Your task to perform on an android device: change the upload size in google photos Image 0: 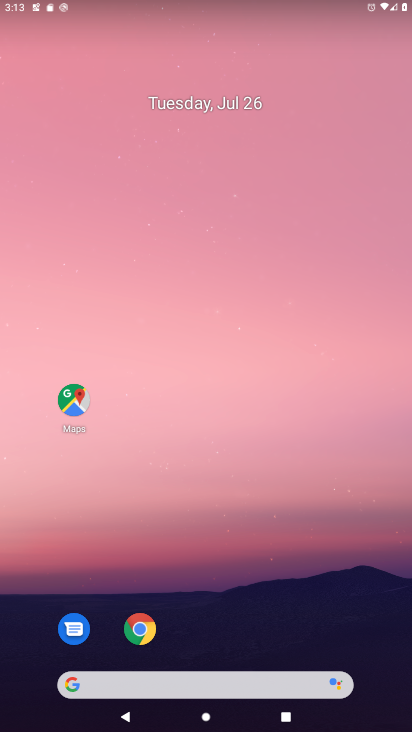
Step 0: drag from (208, 568) to (211, 167)
Your task to perform on an android device: change the upload size in google photos Image 1: 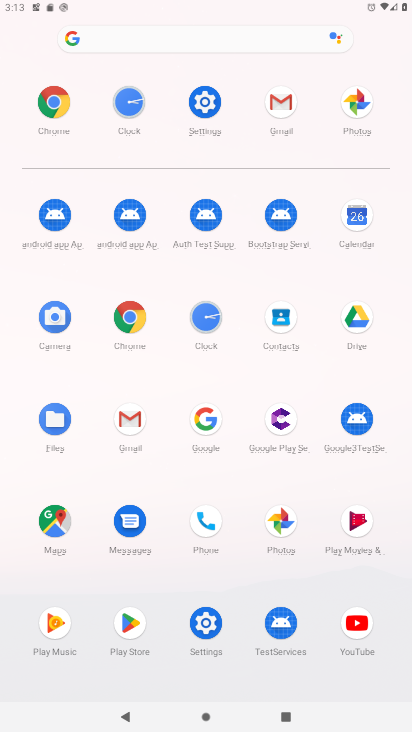
Step 1: click (273, 519)
Your task to perform on an android device: change the upload size in google photos Image 2: 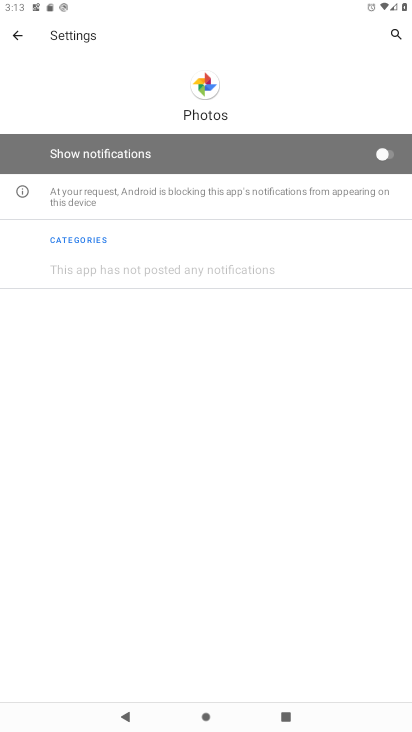
Step 2: click (16, 29)
Your task to perform on an android device: change the upload size in google photos Image 3: 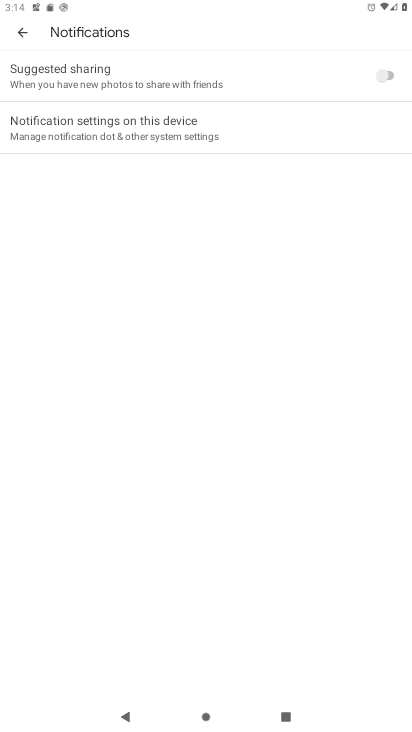
Step 3: click (23, 24)
Your task to perform on an android device: change the upload size in google photos Image 4: 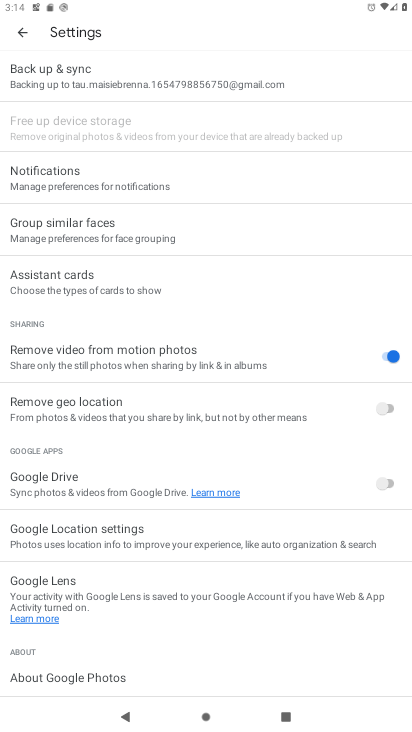
Step 4: click (103, 82)
Your task to perform on an android device: change the upload size in google photos Image 5: 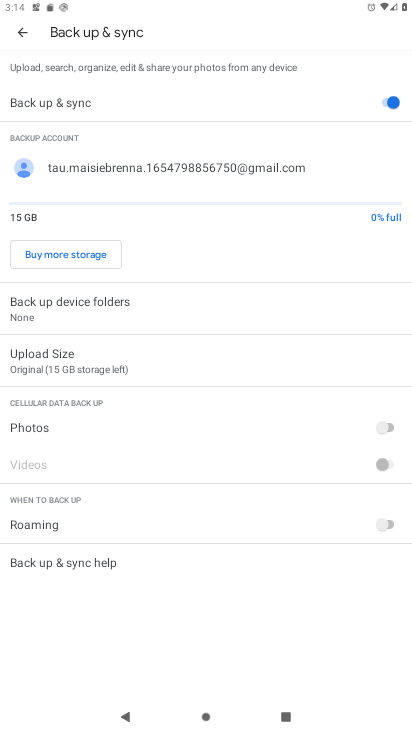
Step 5: click (83, 364)
Your task to perform on an android device: change the upload size in google photos Image 6: 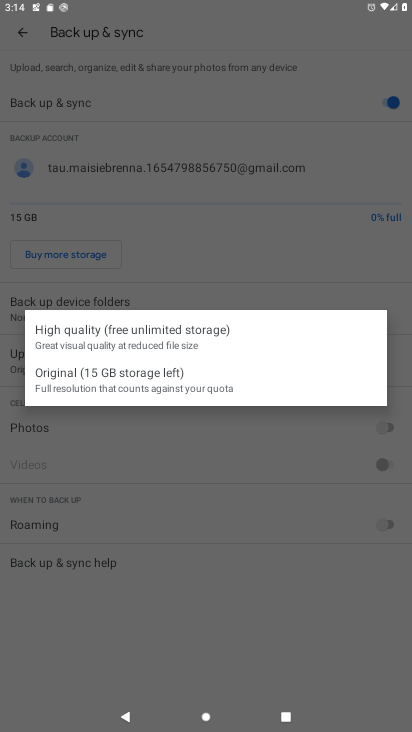
Step 6: click (100, 332)
Your task to perform on an android device: change the upload size in google photos Image 7: 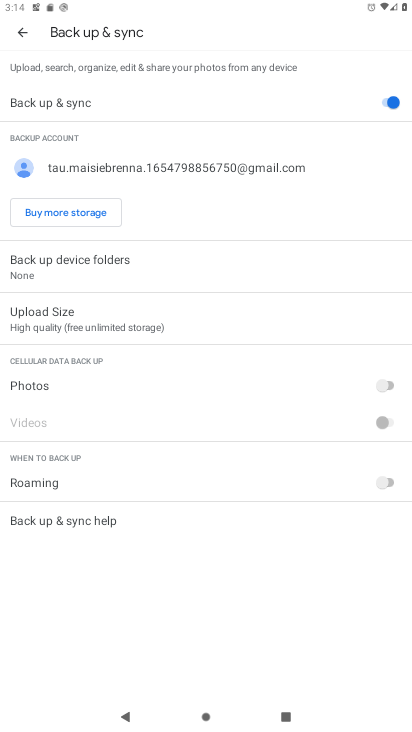
Step 7: task complete